Your task to perform on an android device: manage bookmarks in the chrome app Image 0: 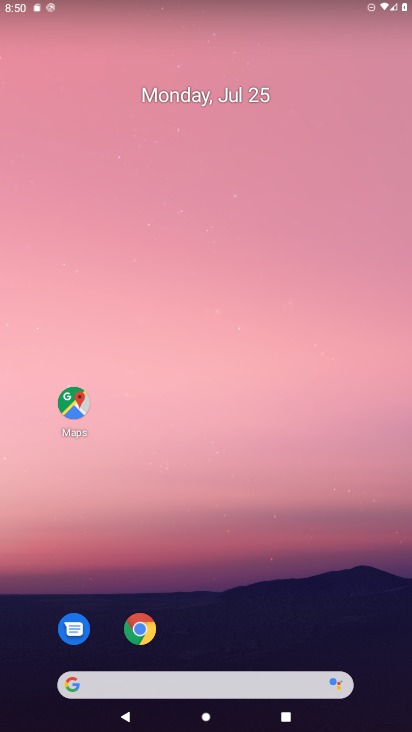
Step 0: click (140, 627)
Your task to perform on an android device: manage bookmarks in the chrome app Image 1: 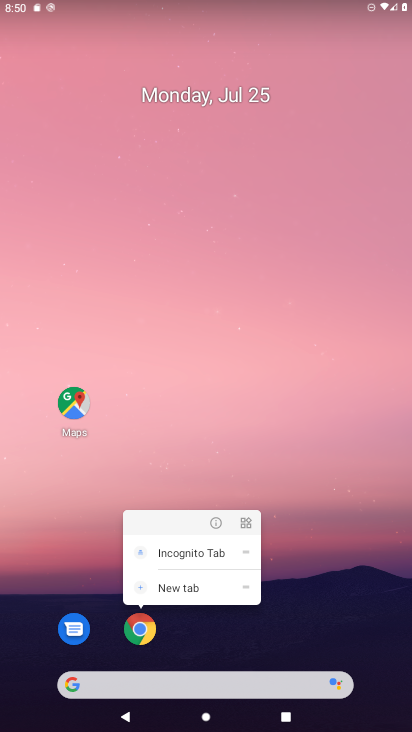
Step 1: click (140, 627)
Your task to perform on an android device: manage bookmarks in the chrome app Image 2: 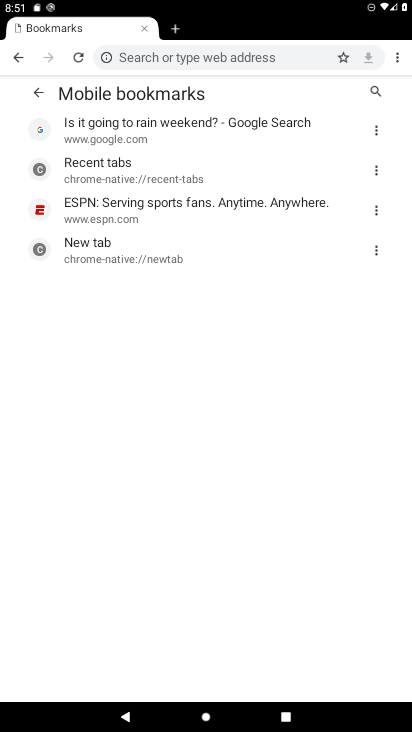
Step 2: click (376, 208)
Your task to perform on an android device: manage bookmarks in the chrome app Image 3: 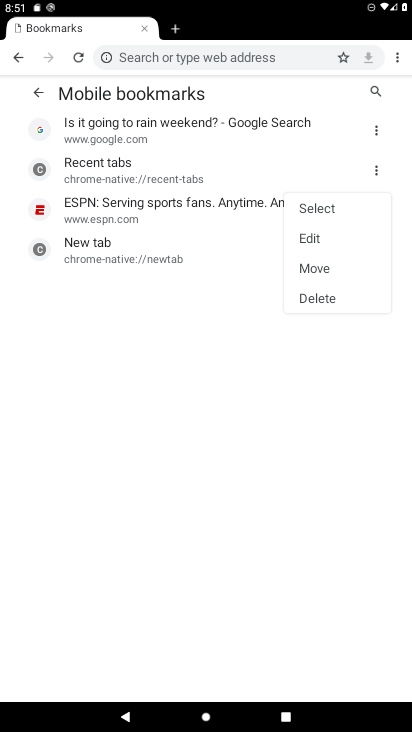
Step 3: click (326, 265)
Your task to perform on an android device: manage bookmarks in the chrome app Image 4: 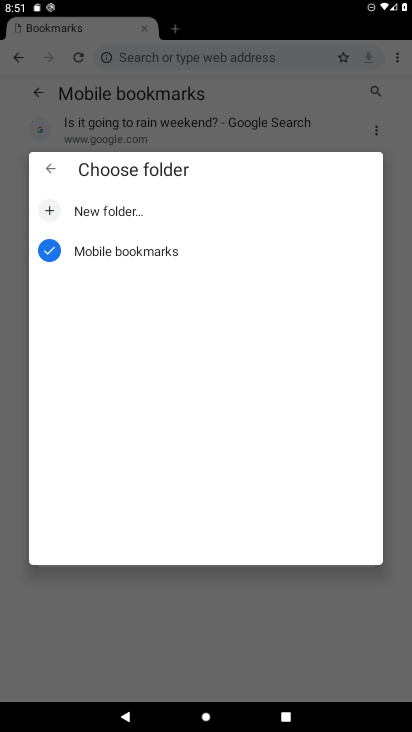
Step 4: click (113, 251)
Your task to perform on an android device: manage bookmarks in the chrome app Image 5: 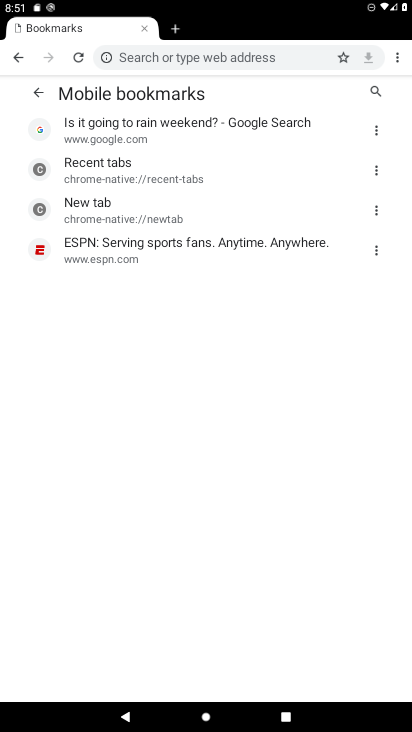
Step 5: click (378, 245)
Your task to perform on an android device: manage bookmarks in the chrome app Image 6: 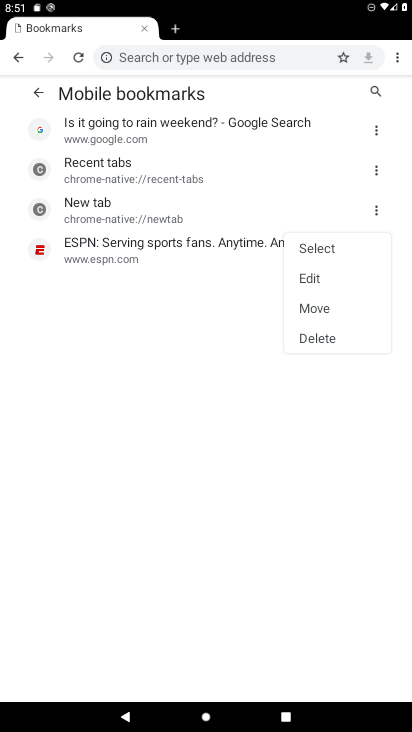
Step 6: click (319, 337)
Your task to perform on an android device: manage bookmarks in the chrome app Image 7: 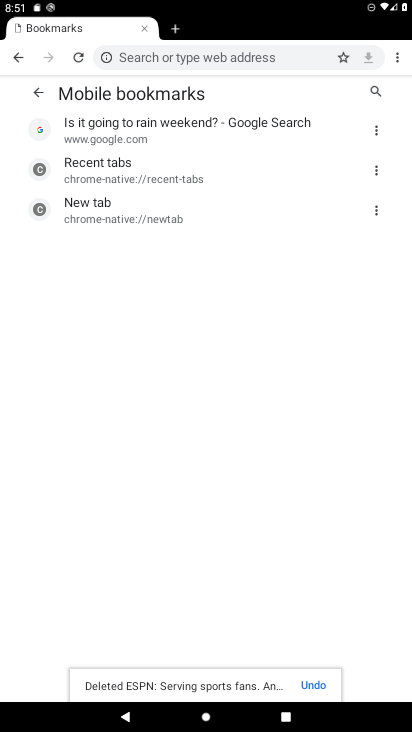
Step 7: task complete